Your task to perform on an android device: search for starred emails in the gmail app Image 0: 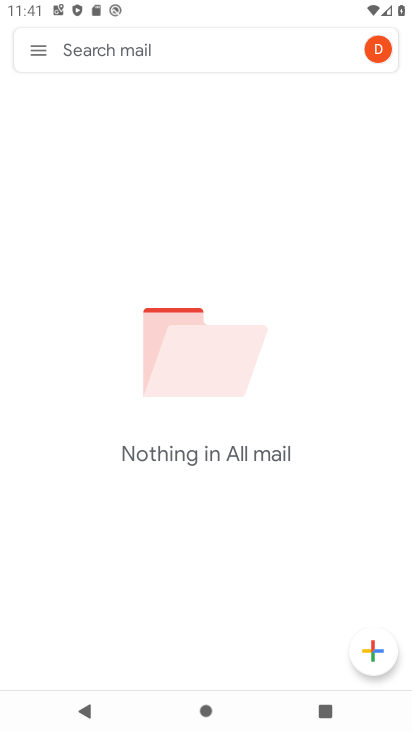
Step 0: press home button
Your task to perform on an android device: search for starred emails in the gmail app Image 1: 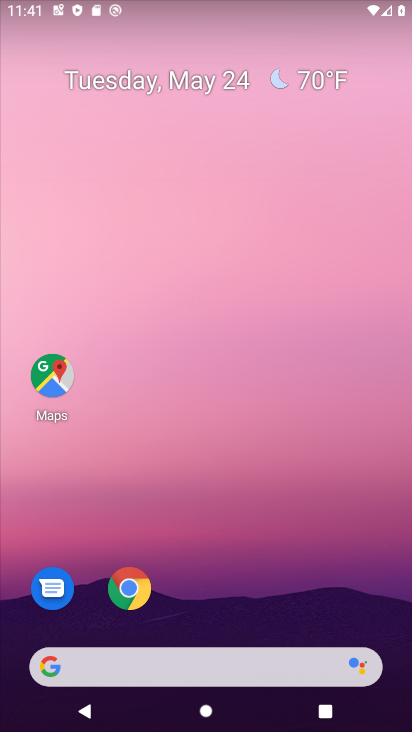
Step 1: drag from (207, 622) to (204, 46)
Your task to perform on an android device: search for starred emails in the gmail app Image 2: 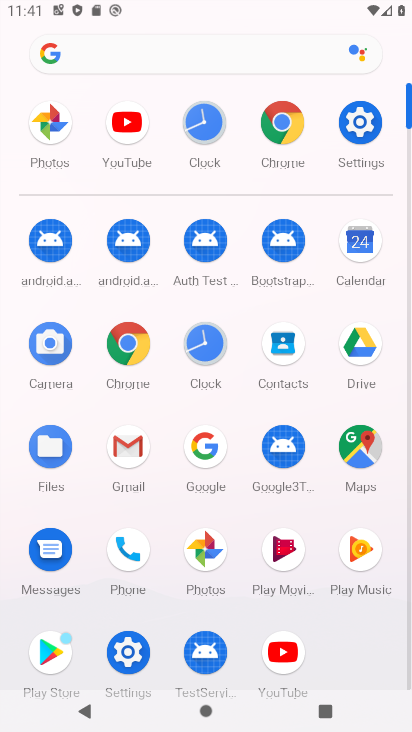
Step 2: click (124, 438)
Your task to perform on an android device: search for starred emails in the gmail app Image 3: 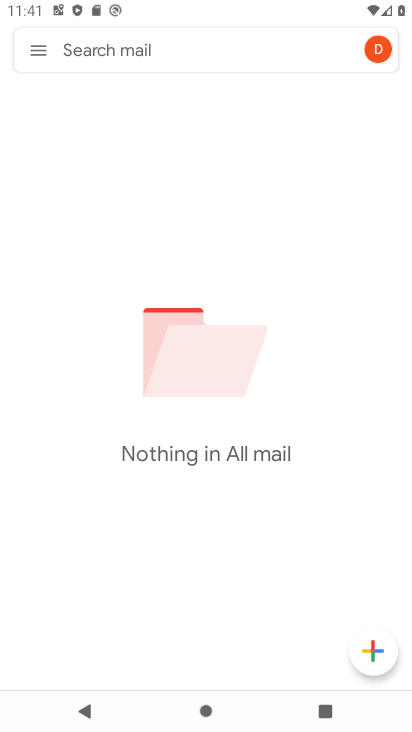
Step 3: click (39, 47)
Your task to perform on an android device: search for starred emails in the gmail app Image 4: 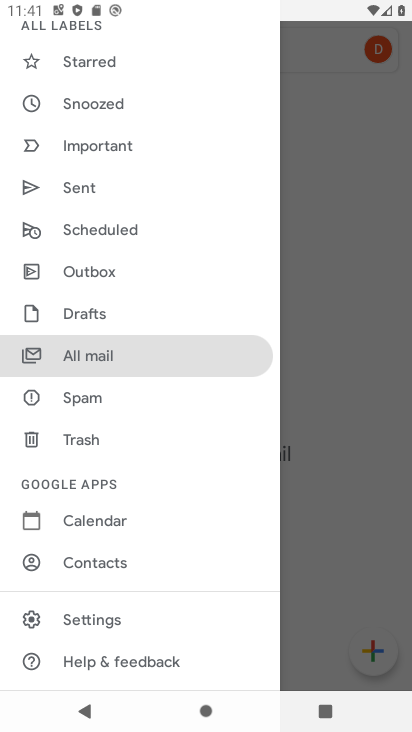
Step 4: click (110, 57)
Your task to perform on an android device: search for starred emails in the gmail app Image 5: 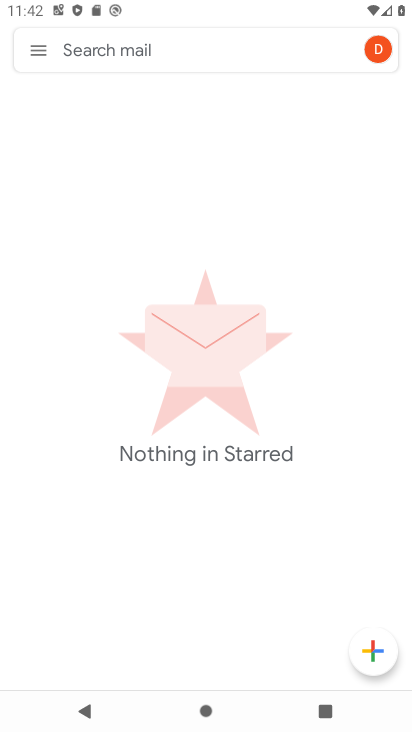
Step 5: task complete